Your task to perform on an android device: What's the latest video from GameSpot News? Image 0: 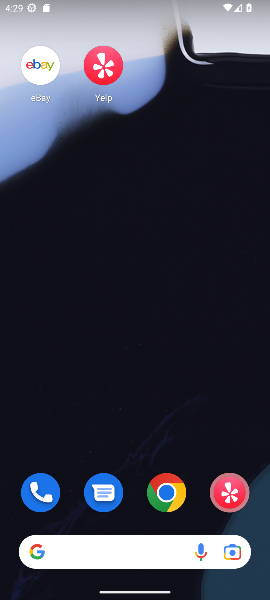
Step 0: drag from (134, 448) to (151, 91)
Your task to perform on an android device: What's the latest video from GameSpot News? Image 1: 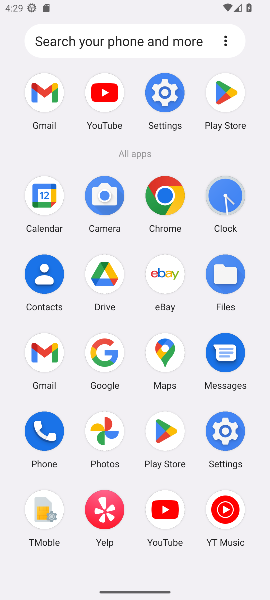
Step 1: click (163, 201)
Your task to perform on an android device: What's the latest video from GameSpot News? Image 2: 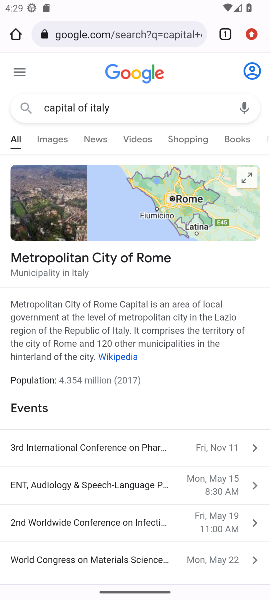
Step 2: click (118, 41)
Your task to perform on an android device: What's the latest video from GameSpot News? Image 3: 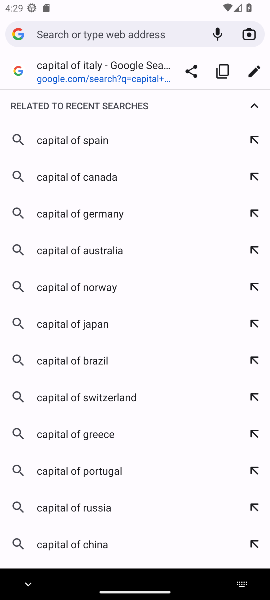
Step 3: type "the latest video from GameSpot News"
Your task to perform on an android device: What's the latest video from GameSpot News? Image 4: 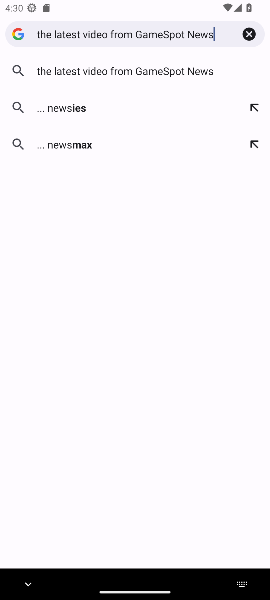
Step 4: click (98, 74)
Your task to perform on an android device: What's the latest video from GameSpot News? Image 5: 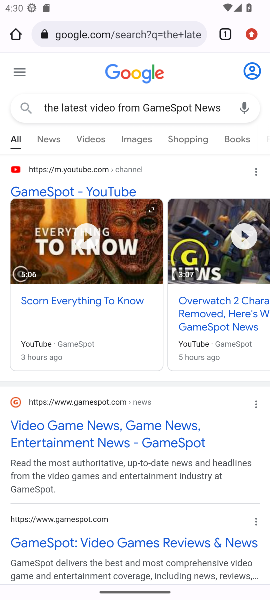
Step 5: click (82, 143)
Your task to perform on an android device: What's the latest video from GameSpot News? Image 6: 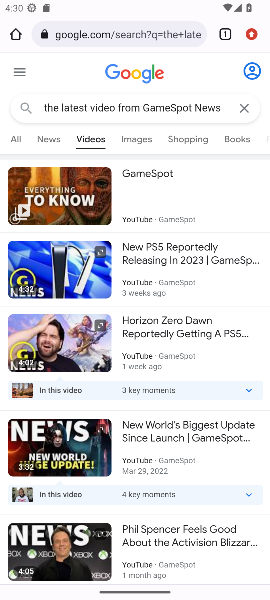
Step 6: click (93, 208)
Your task to perform on an android device: What's the latest video from GameSpot News? Image 7: 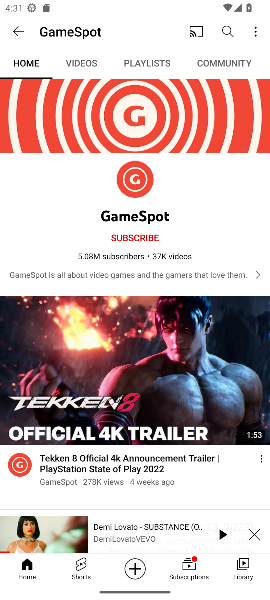
Step 7: click (137, 354)
Your task to perform on an android device: What's the latest video from GameSpot News? Image 8: 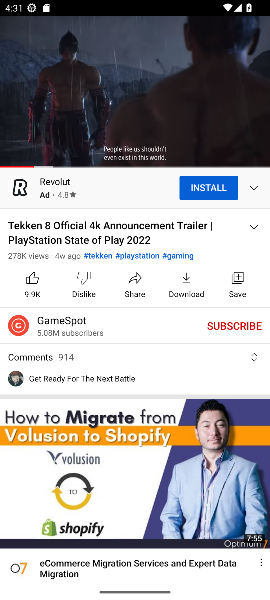
Step 8: click (118, 98)
Your task to perform on an android device: What's the latest video from GameSpot News? Image 9: 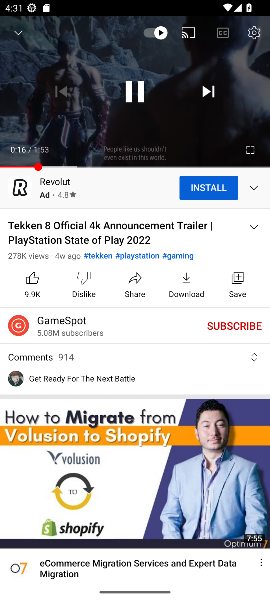
Step 9: click (133, 93)
Your task to perform on an android device: What's the latest video from GameSpot News? Image 10: 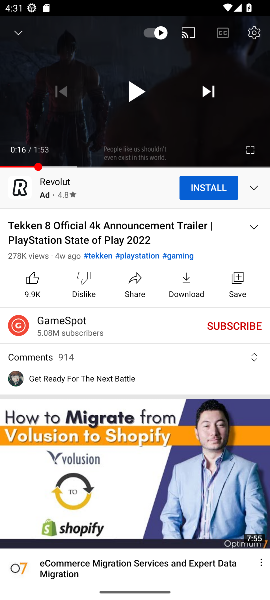
Step 10: task complete